Your task to perform on an android device: Open the calendar app, open the side menu, and click the "Day" option Image 0: 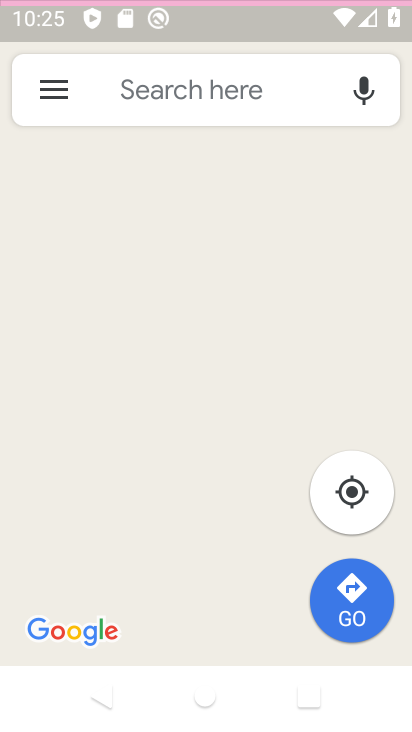
Step 0: click (339, 37)
Your task to perform on an android device: Open the calendar app, open the side menu, and click the "Day" option Image 1: 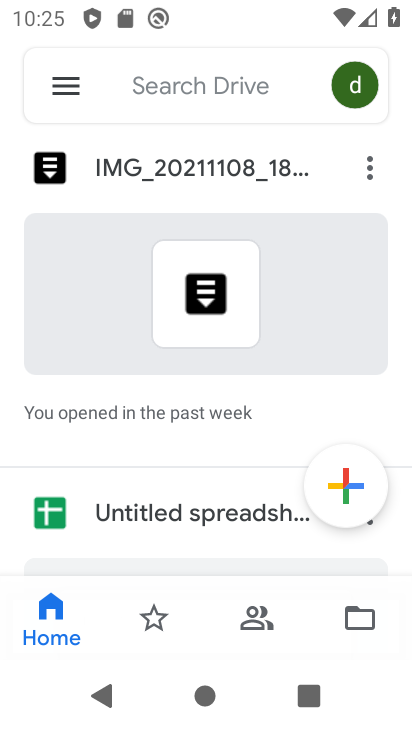
Step 1: press back button
Your task to perform on an android device: Open the calendar app, open the side menu, and click the "Day" option Image 2: 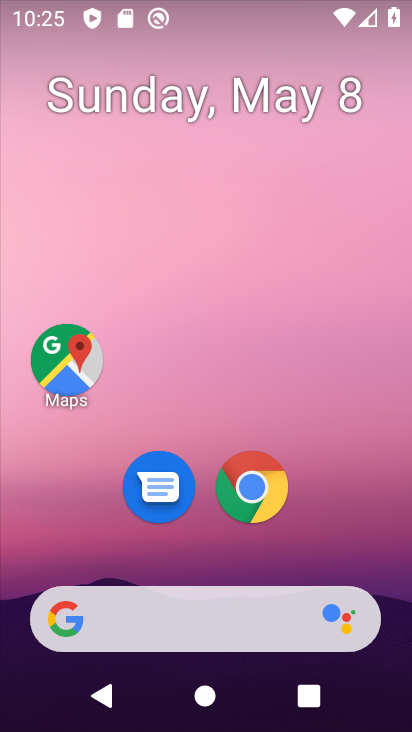
Step 2: drag from (231, 523) to (293, 76)
Your task to perform on an android device: Open the calendar app, open the side menu, and click the "Day" option Image 3: 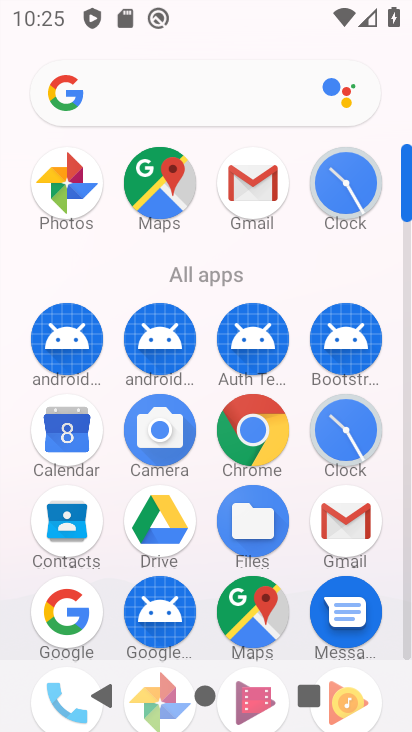
Step 3: click (68, 443)
Your task to perform on an android device: Open the calendar app, open the side menu, and click the "Day" option Image 4: 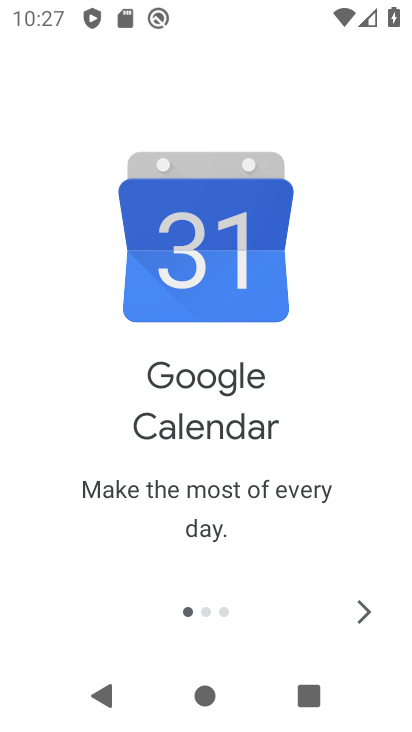
Step 4: click (366, 605)
Your task to perform on an android device: Open the calendar app, open the side menu, and click the "Day" option Image 5: 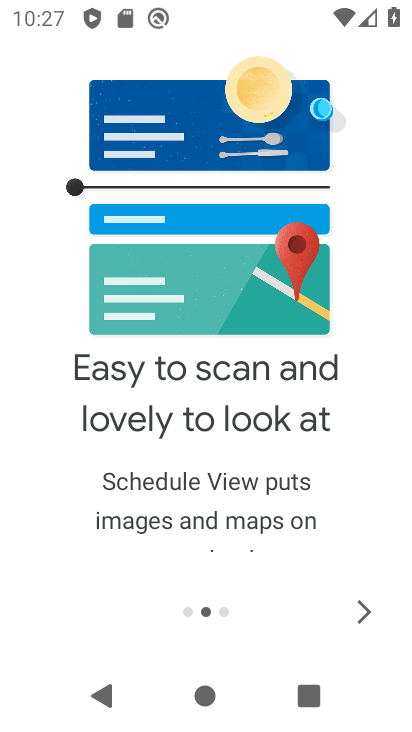
Step 5: click (366, 605)
Your task to perform on an android device: Open the calendar app, open the side menu, and click the "Day" option Image 6: 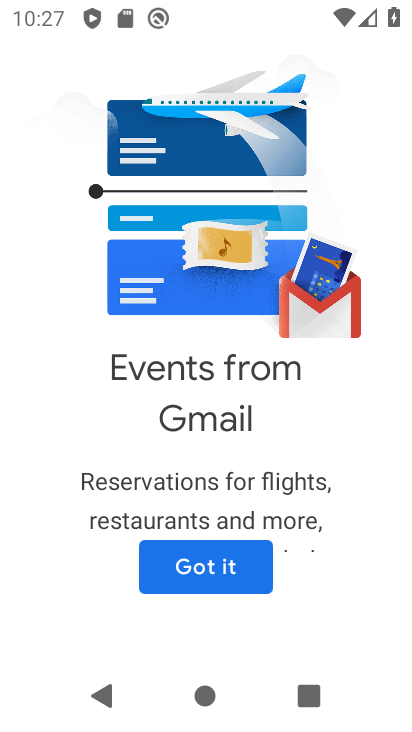
Step 6: click (250, 569)
Your task to perform on an android device: Open the calendar app, open the side menu, and click the "Day" option Image 7: 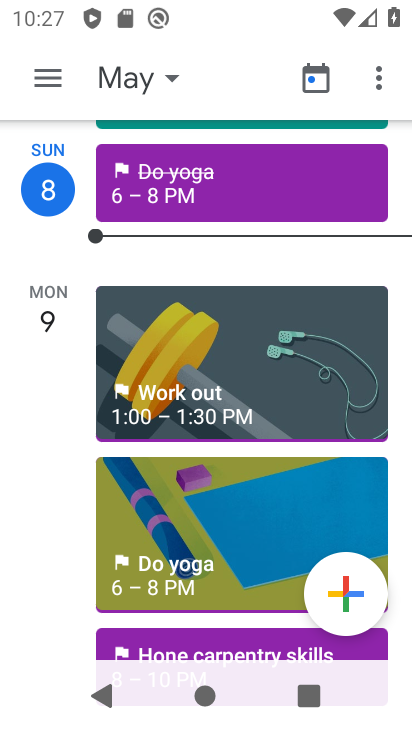
Step 7: click (43, 61)
Your task to perform on an android device: Open the calendar app, open the side menu, and click the "Day" option Image 8: 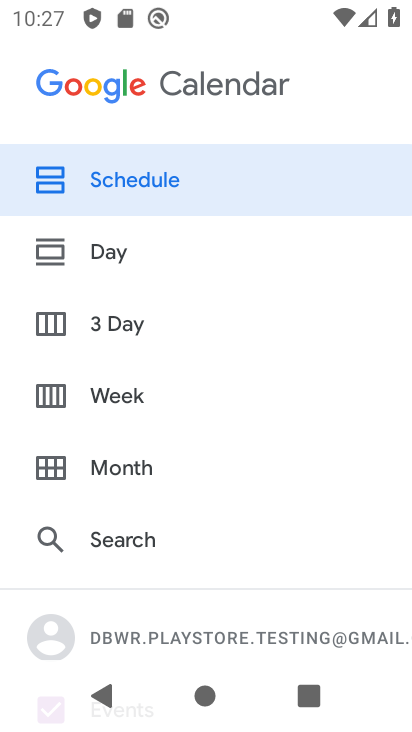
Step 8: click (109, 240)
Your task to perform on an android device: Open the calendar app, open the side menu, and click the "Day" option Image 9: 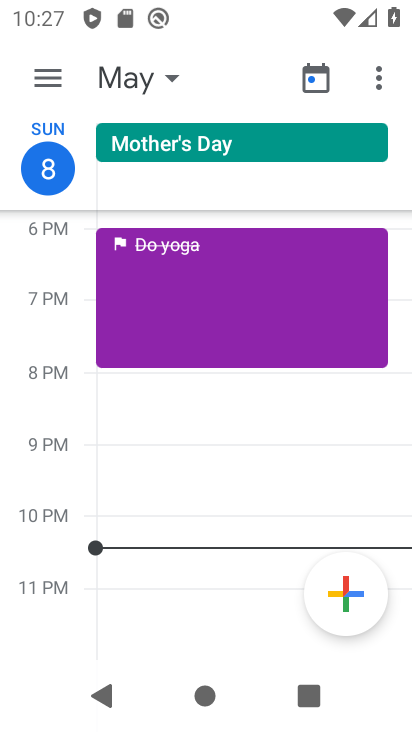
Step 9: task complete